Your task to perform on an android device: turn on airplane mode Image 0: 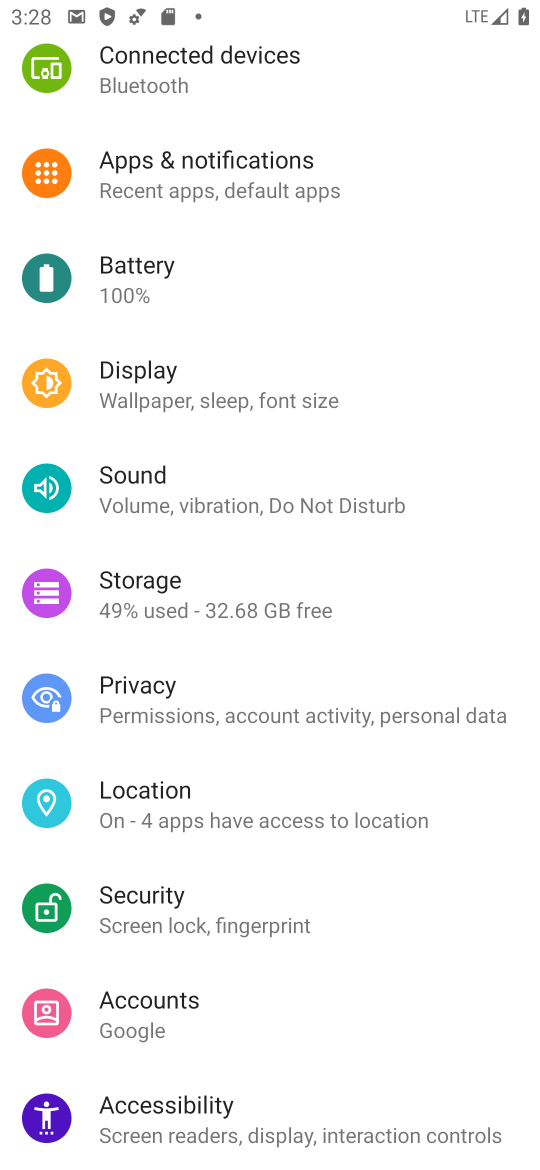
Step 0: drag from (466, 290) to (476, 1156)
Your task to perform on an android device: turn on airplane mode Image 1: 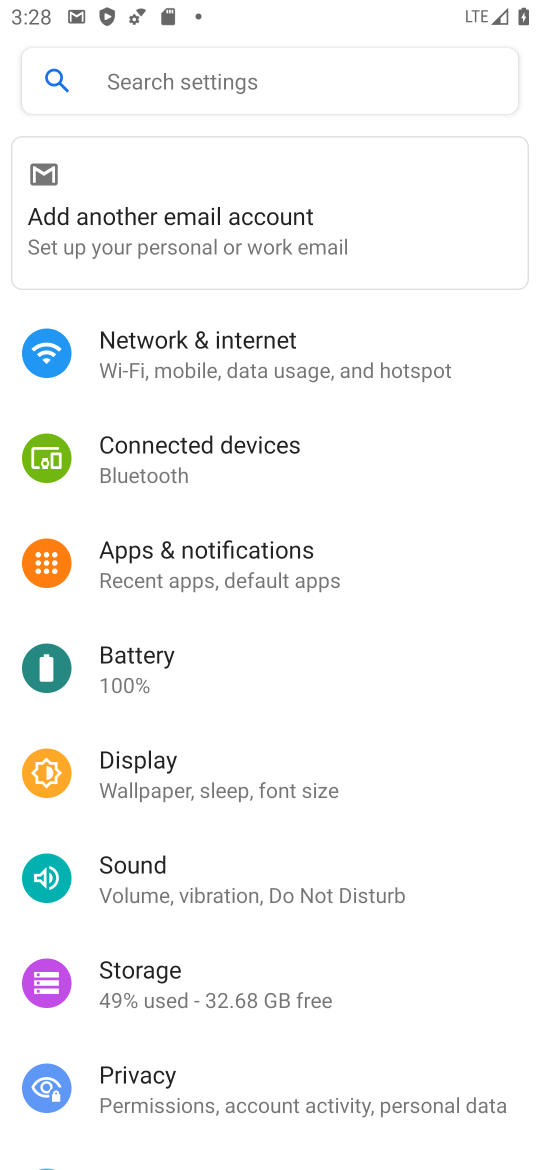
Step 1: click (329, 396)
Your task to perform on an android device: turn on airplane mode Image 2: 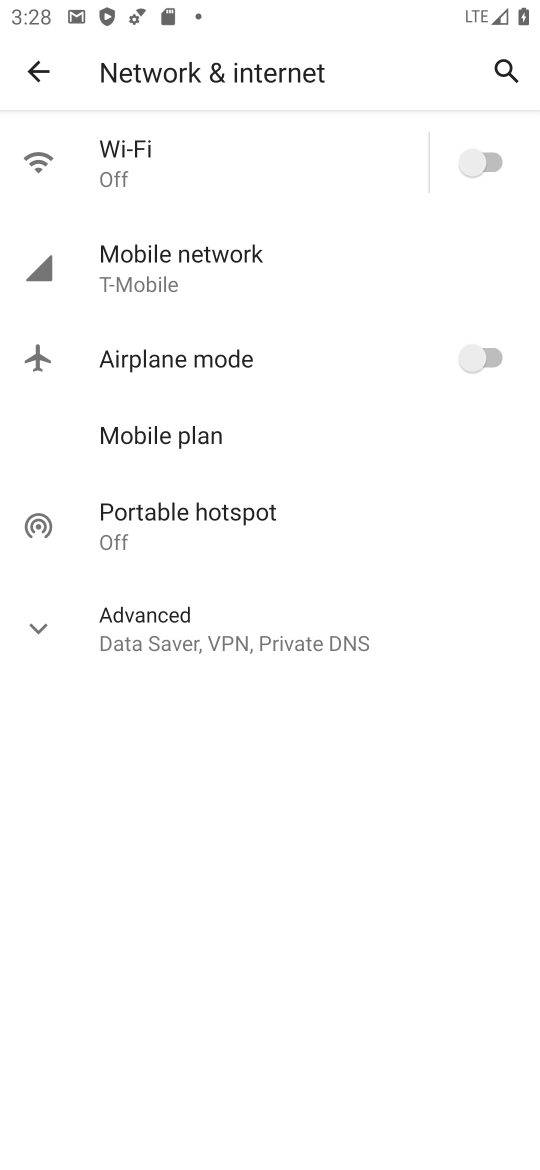
Step 2: click (483, 360)
Your task to perform on an android device: turn on airplane mode Image 3: 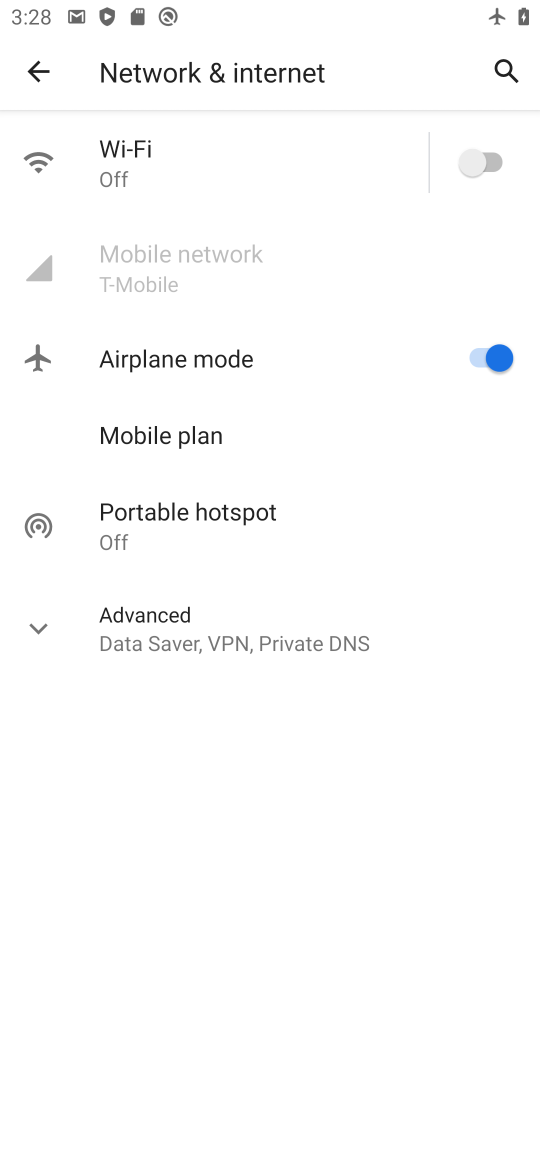
Step 3: task complete